Your task to perform on an android device: What's the weather today? Image 0: 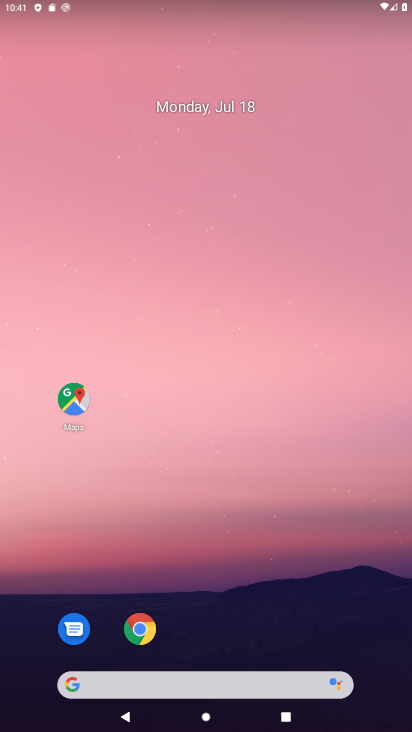
Step 0: drag from (219, 207) to (409, 202)
Your task to perform on an android device: What's the weather today? Image 1: 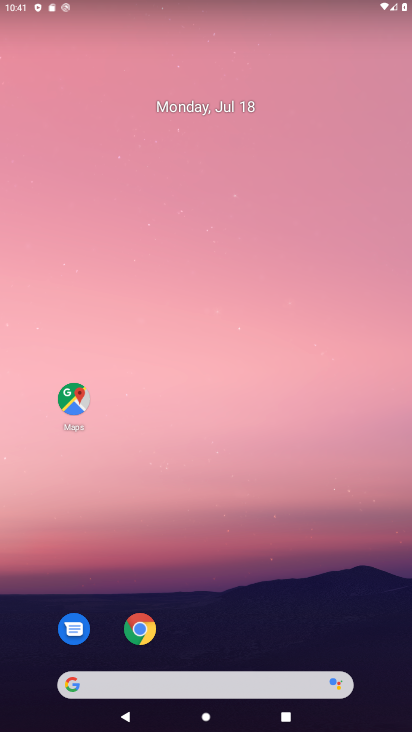
Step 1: task complete